Your task to perform on an android device: turn on sleep mode Image 0: 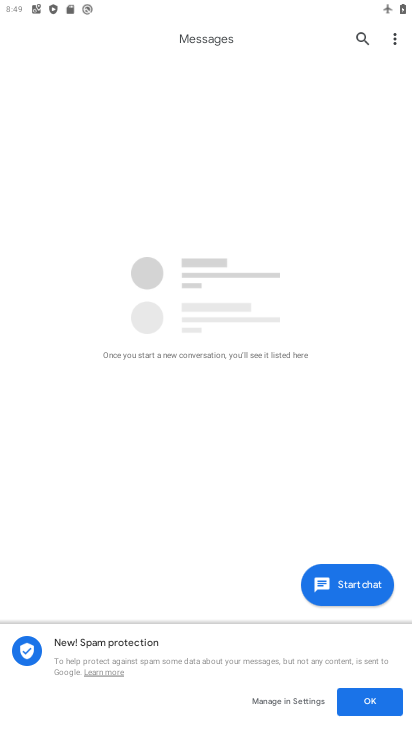
Step 0: press home button
Your task to perform on an android device: turn on sleep mode Image 1: 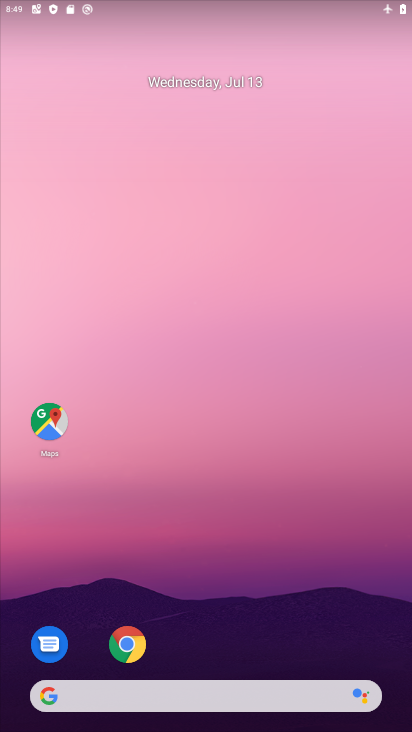
Step 1: drag from (230, 700) to (204, 88)
Your task to perform on an android device: turn on sleep mode Image 2: 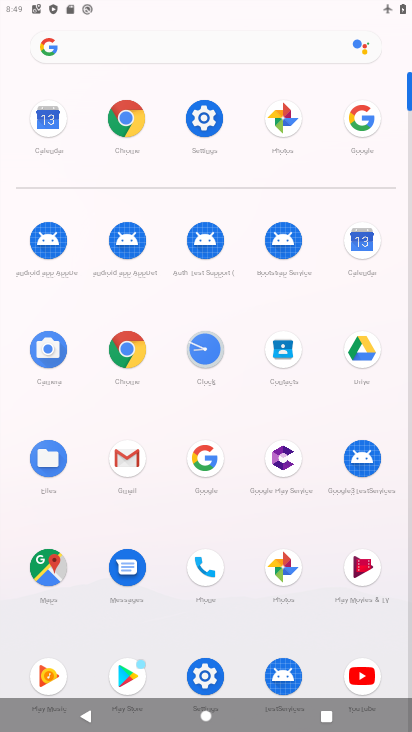
Step 2: click (208, 124)
Your task to perform on an android device: turn on sleep mode Image 3: 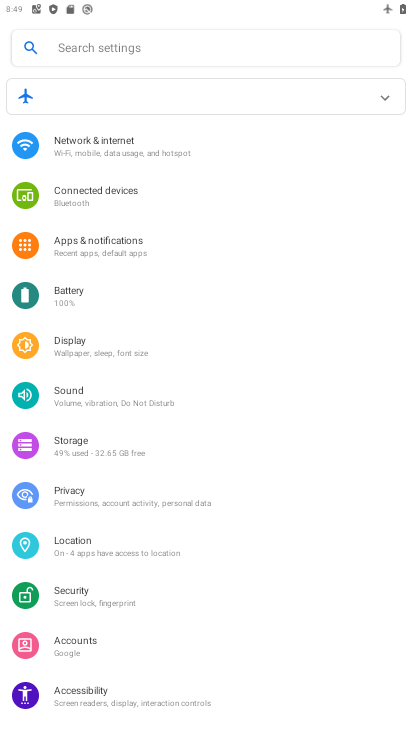
Step 3: click (88, 139)
Your task to perform on an android device: turn on sleep mode Image 4: 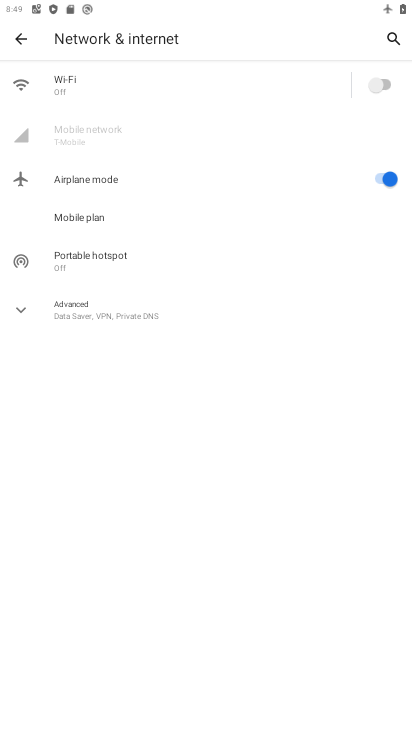
Step 4: click (21, 36)
Your task to perform on an android device: turn on sleep mode Image 5: 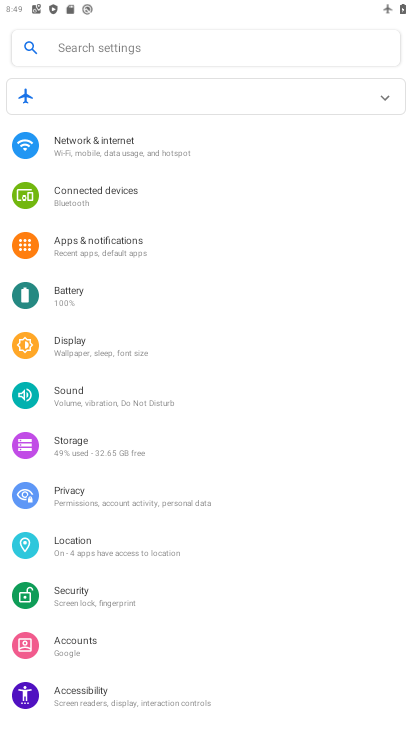
Step 5: task complete